Your task to perform on an android device: turn off data saver in the chrome app Image 0: 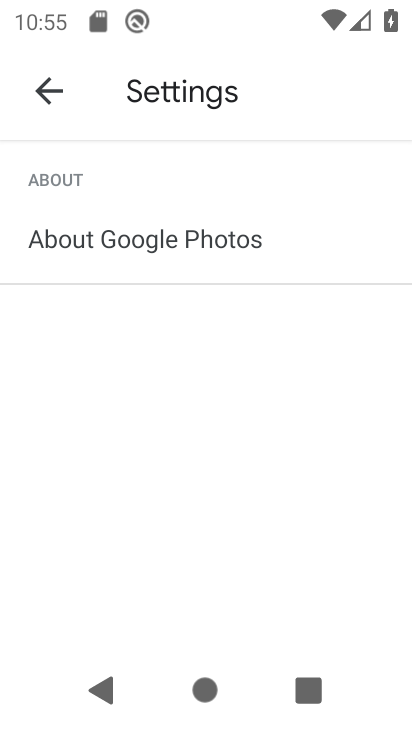
Step 0: press home button
Your task to perform on an android device: turn off data saver in the chrome app Image 1: 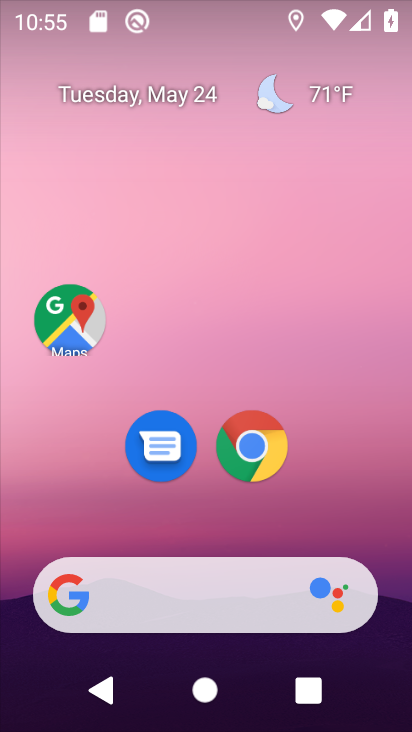
Step 1: drag from (232, 517) to (170, 66)
Your task to perform on an android device: turn off data saver in the chrome app Image 2: 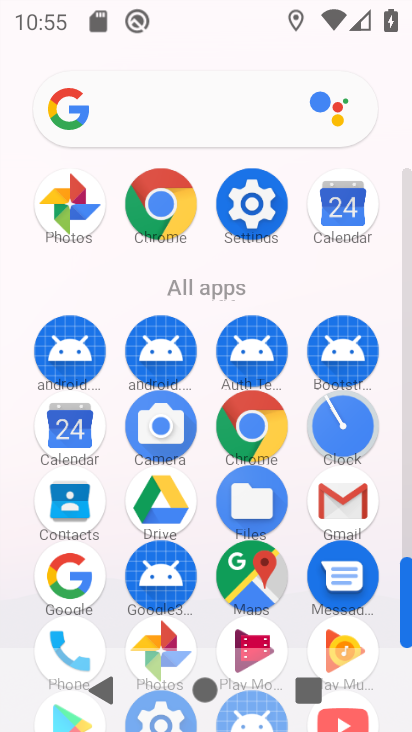
Step 2: click (260, 420)
Your task to perform on an android device: turn off data saver in the chrome app Image 3: 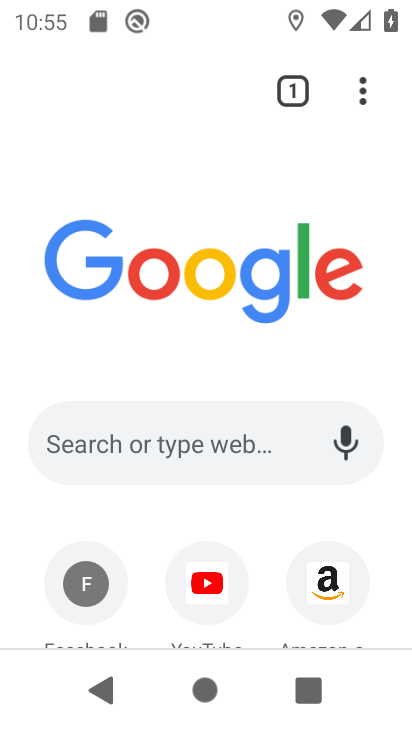
Step 3: click (351, 95)
Your task to perform on an android device: turn off data saver in the chrome app Image 4: 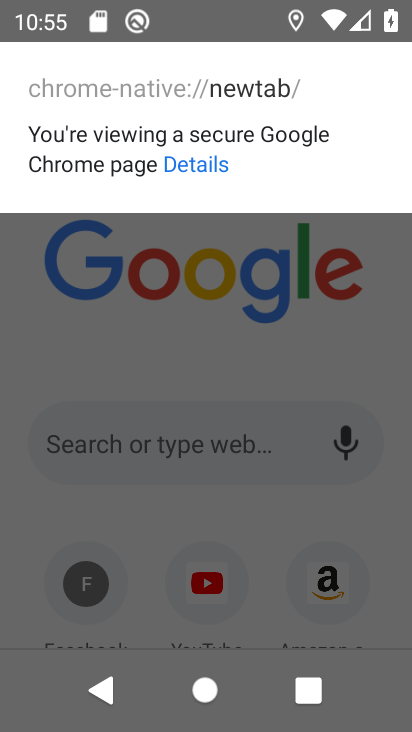
Step 4: click (281, 345)
Your task to perform on an android device: turn off data saver in the chrome app Image 5: 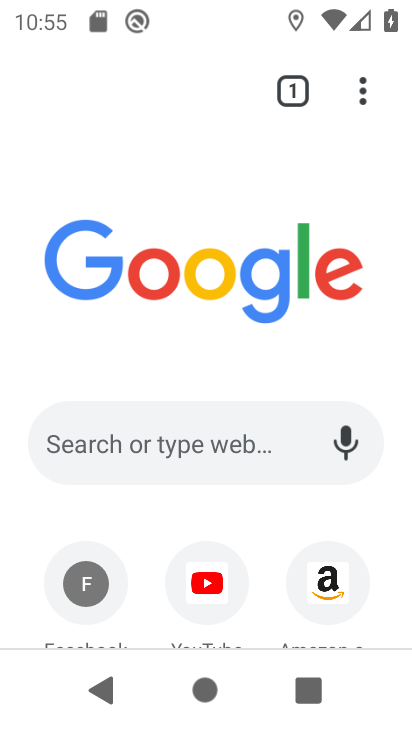
Step 5: click (358, 101)
Your task to perform on an android device: turn off data saver in the chrome app Image 6: 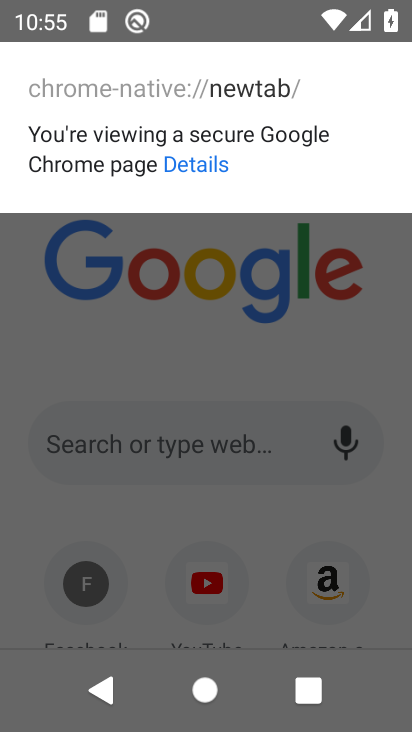
Step 6: click (262, 326)
Your task to perform on an android device: turn off data saver in the chrome app Image 7: 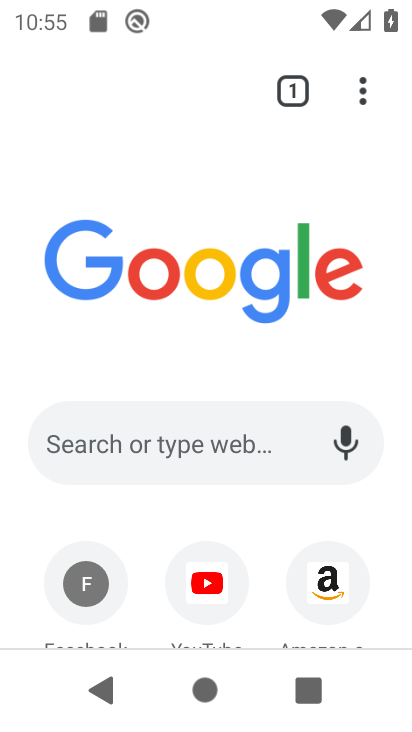
Step 7: click (370, 98)
Your task to perform on an android device: turn off data saver in the chrome app Image 8: 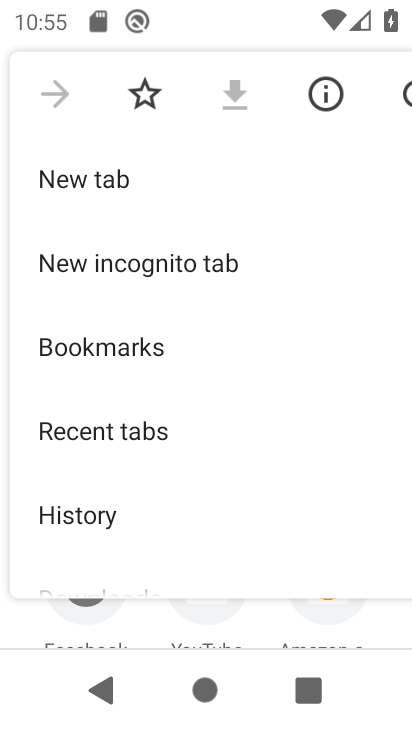
Step 8: drag from (229, 440) to (232, 102)
Your task to perform on an android device: turn off data saver in the chrome app Image 9: 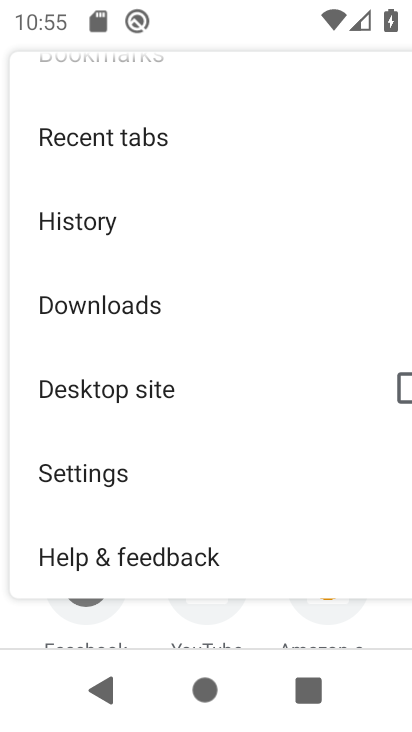
Step 9: click (139, 477)
Your task to perform on an android device: turn off data saver in the chrome app Image 10: 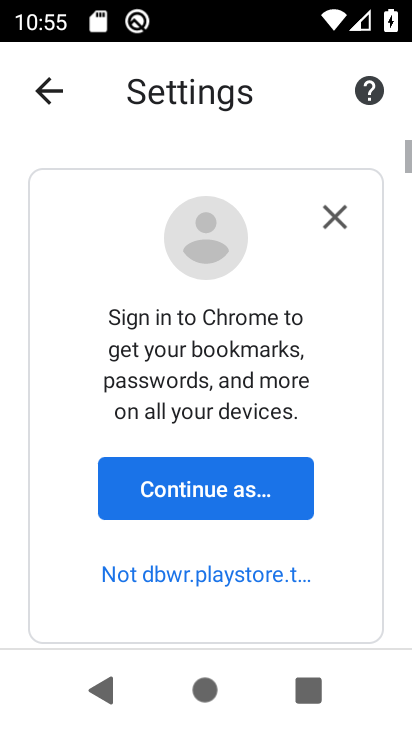
Step 10: drag from (138, 477) to (167, 159)
Your task to perform on an android device: turn off data saver in the chrome app Image 11: 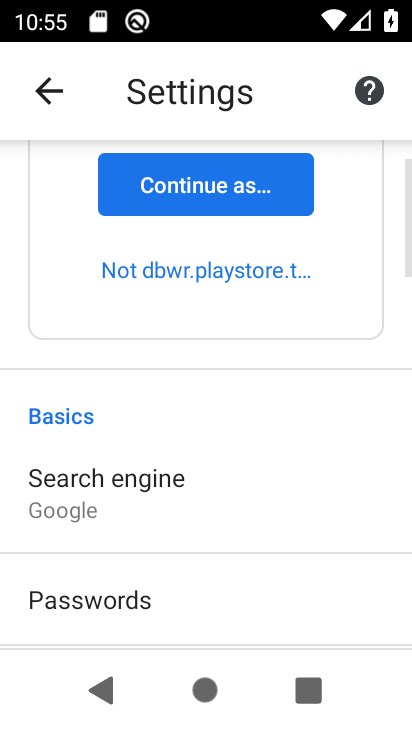
Step 11: drag from (165, 599) to (163, 191)
Your task to perform on an android device: turn off data saver in the chrome app Image 12: 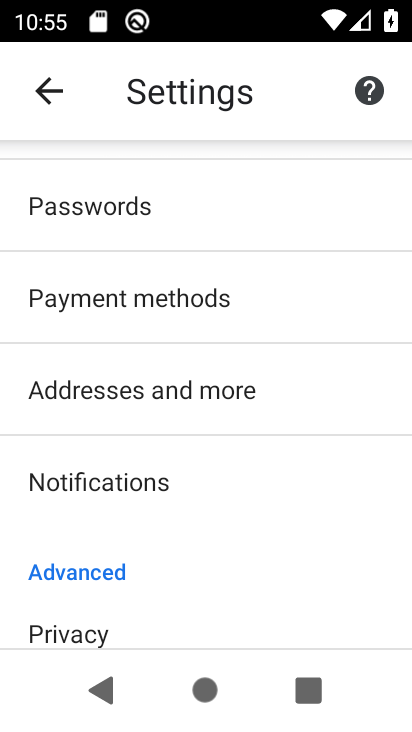
Step 12: drag from (152, 540) to (151, 179)
Your task to perform on an android device: turn off data saver in the chrome app Image 13: 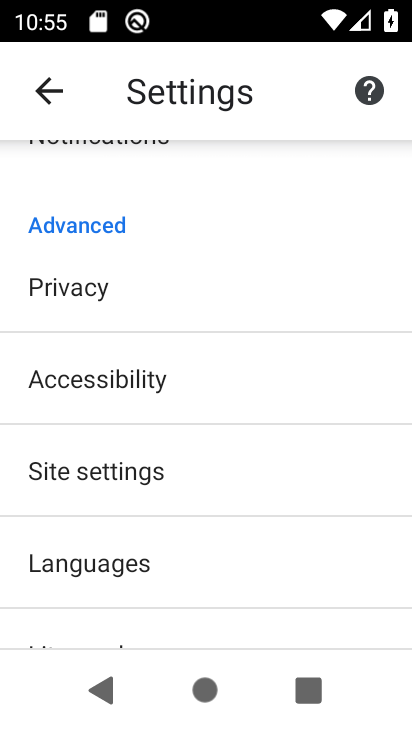
Step 13: drag from (111, 546) to (182, 160)
Your task to perform on an android device: turn off data saver in the chrome app Image 14: 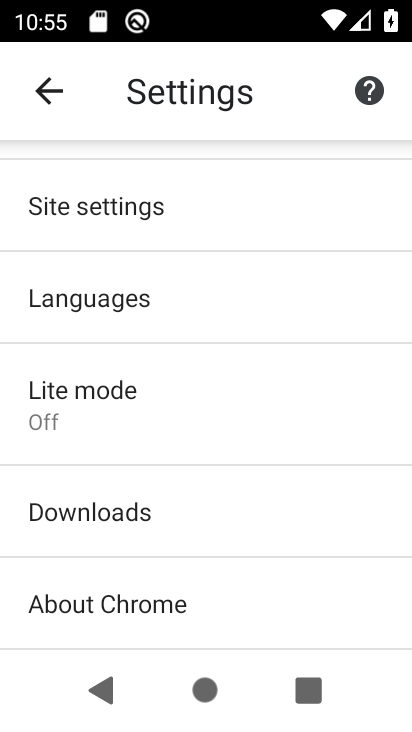
Step 14: click (126, 434)
Your task to perform on an android device: turn off data saver in the chrome app Image 15: 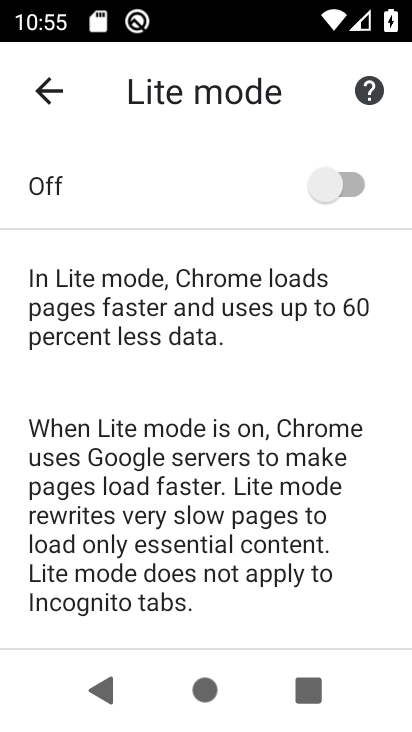
Step 15: task complete